Your task to perform on an android device: empty trash in google photos Image 0: 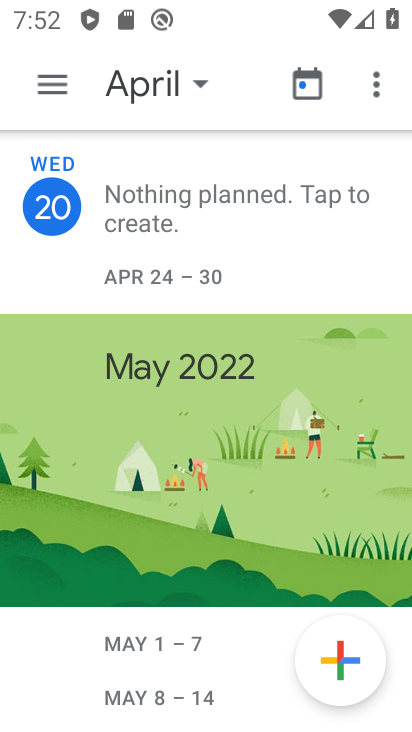
Step 0: press home button
Your task to perform on an android device: empty trash in google photos Image 1: 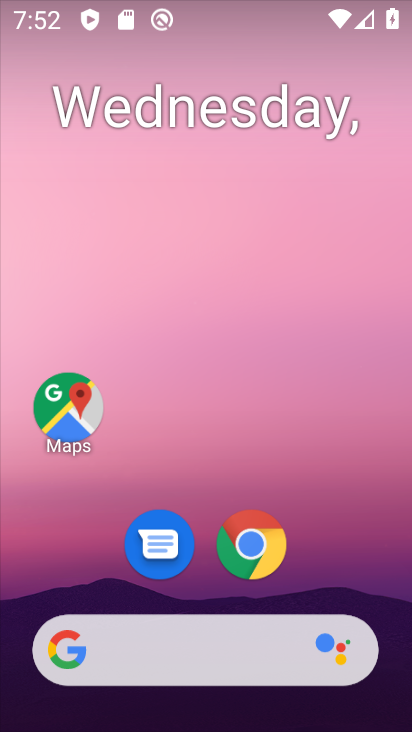
Step 1: drag from (218, 284) to (222, 112)
Your task to perform on an android device: empty trash in google photos Image 2: 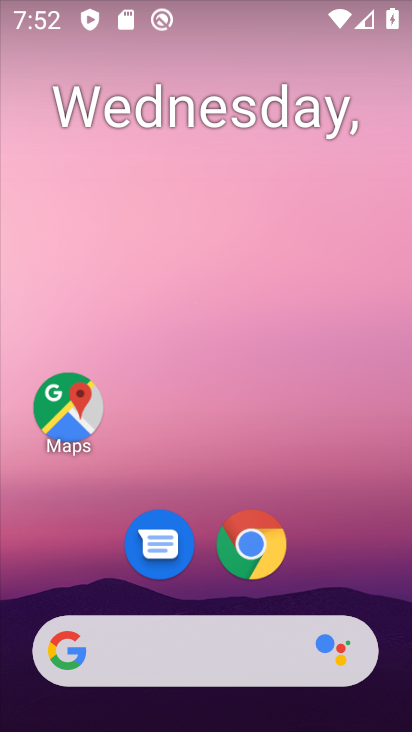
Step 2: drag from (206, 584) to (210, 123)
Your task to perform on an android device: empty trash in google photos Image 3: 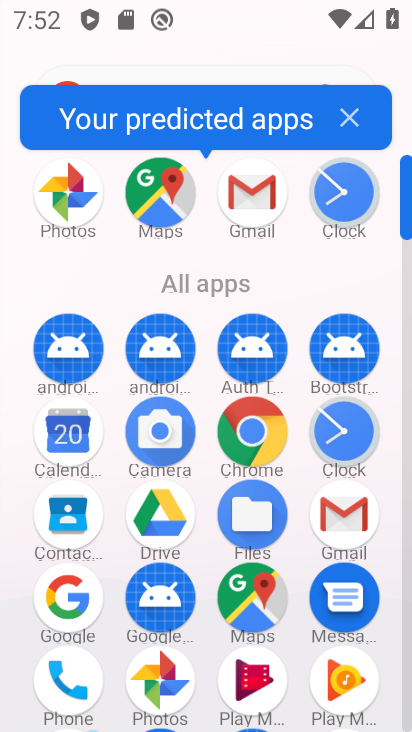
Step 3: click (61, 202)
Your task to perform on an android device: empty trash in google photos Image 4: 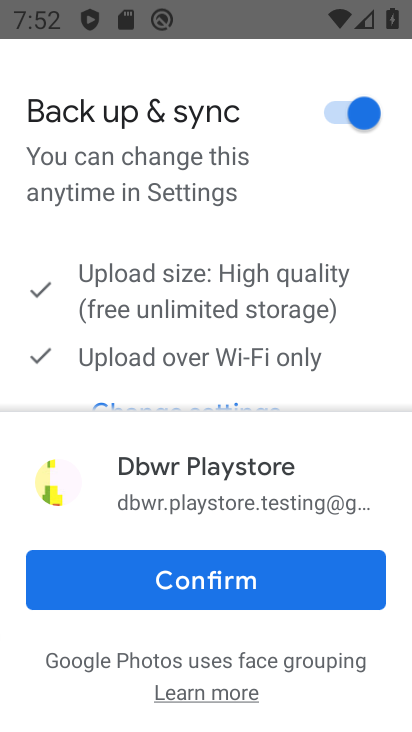
Step 4: click (213, 580)
Your task to perform on an android device: empty trash in google photos Image 5: 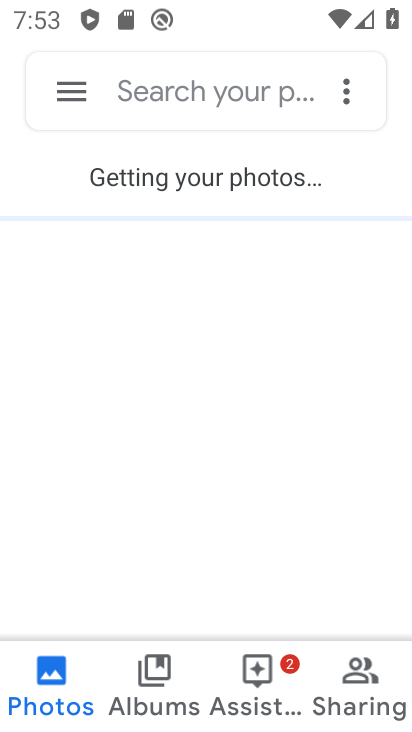
Step 5: click (67, 80)
Your task to perform on an android device: empty trash in google photos Image 6: 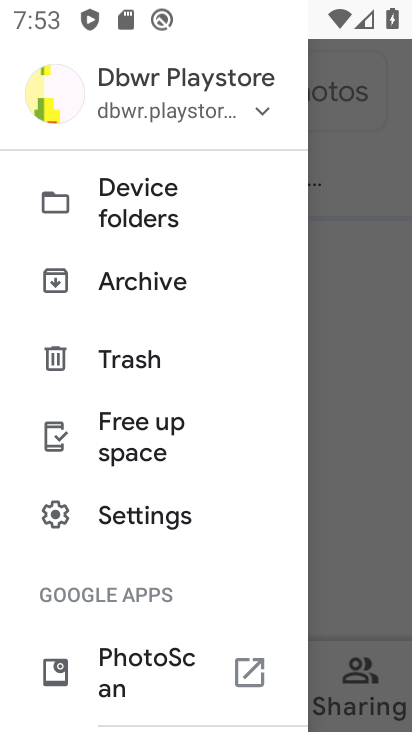
Step 6: drag from (131, 510) to (200, 172)
Your task to perform on an android device: empty trash in google photos Image 7: 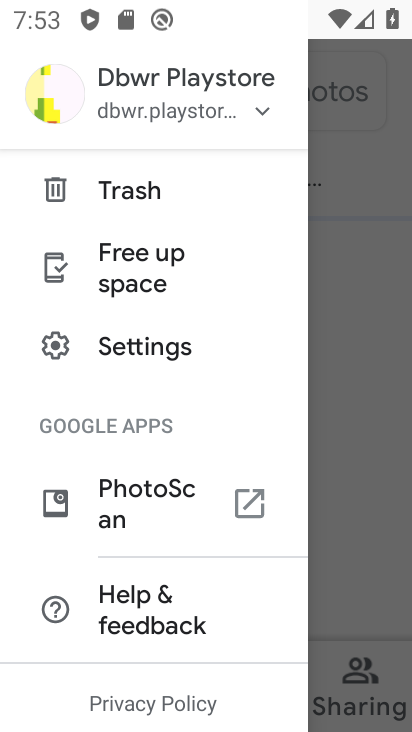
Step 7: click (115, 191)
Your task to perform on an android device: empty trash in google photos Image 8: 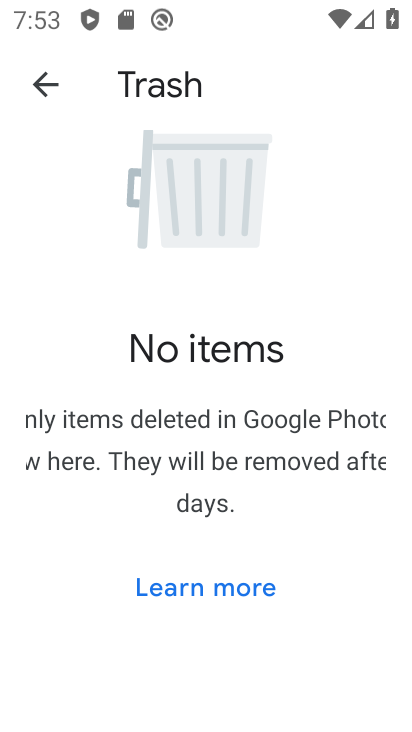
Step 8: task complete